Your task to perform on an android device: Open Google Image 0: 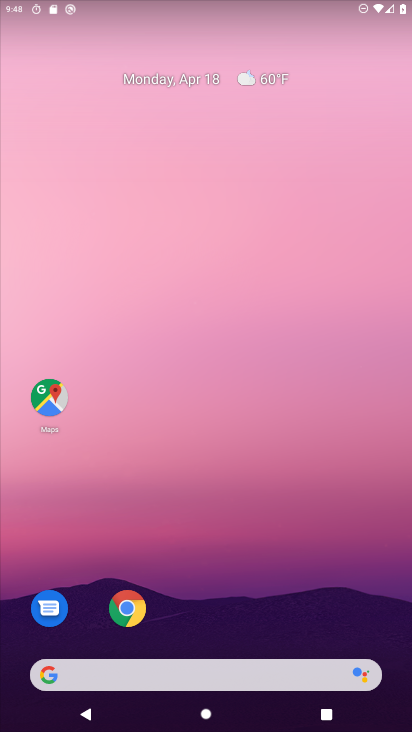
Step 0: drag from (389, 18) to (355, 6)
Your task to perform on an android device: Open Google Image 1: 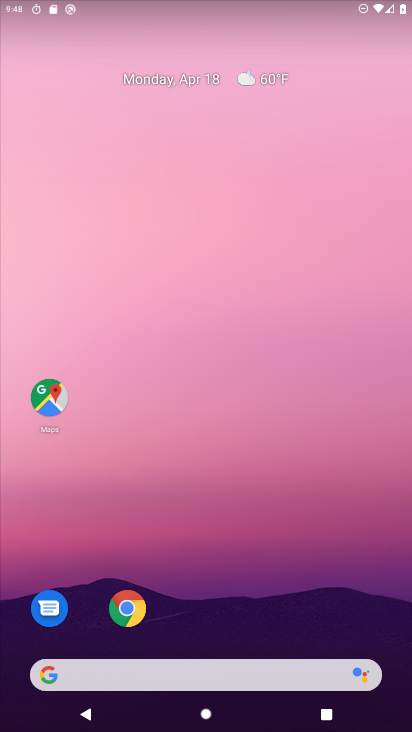
Step 1: drag from (334, 495) to (321, 156)
Your task to perform on an android device: Open Google Image 2: 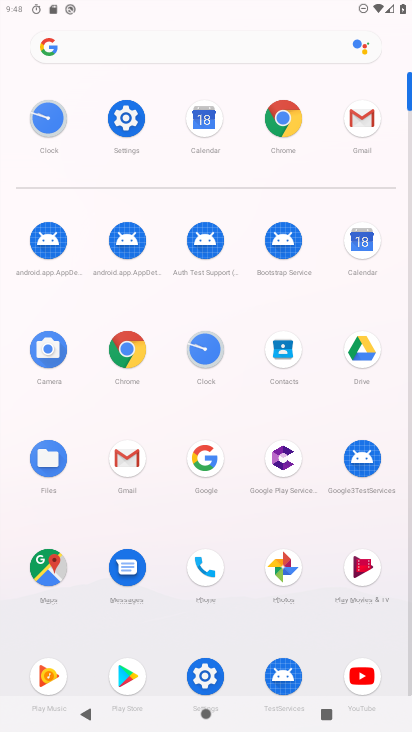
Step 2: click (200, 450)
Your task to perform on an android device: Open Google Image 3: 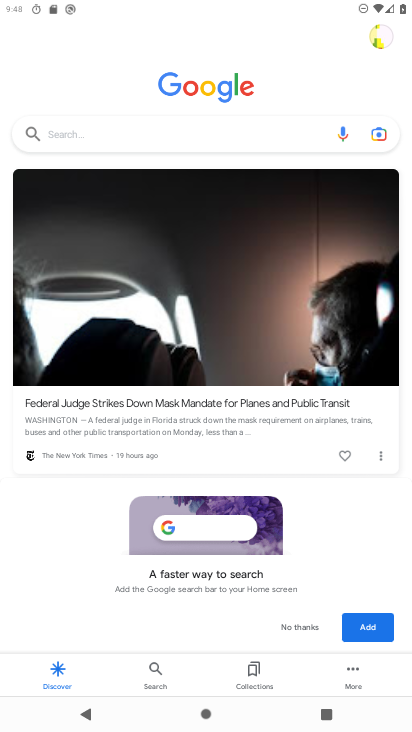
Step 3: task complete